Your task to perform on an android device: toggle location history Image 0: 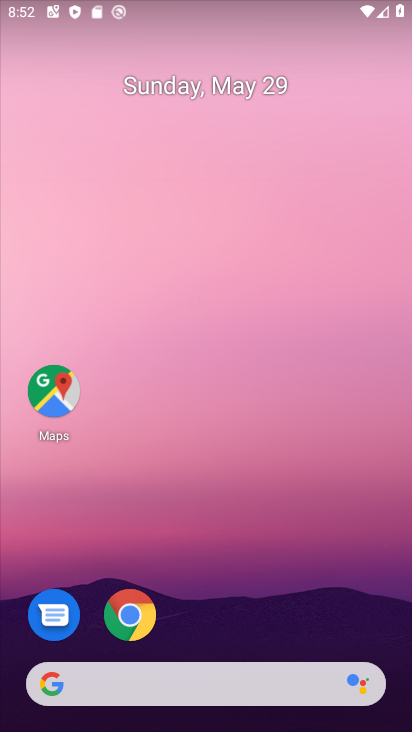
Step 0: drag from (272, 587) to (188, 160)
Your task to perform on an android device: toggle location history Image 1: 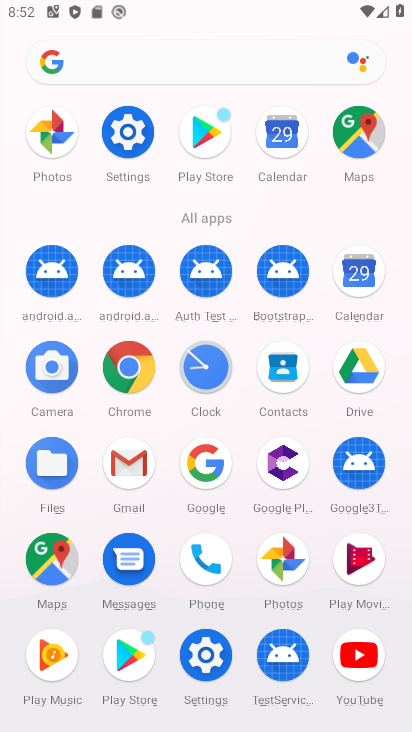
Step 1: click (131, 127)
Your task to perform on an android device: toggle location history Image 2: 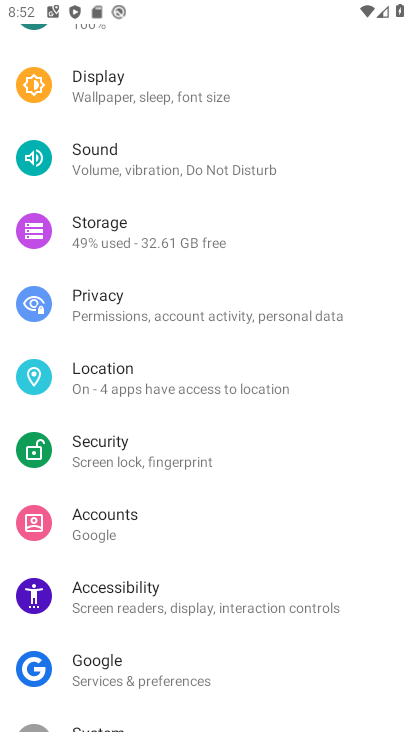
Step 2: click (102, 381)
Your task to perform on an android device: toggle location history Image 3: 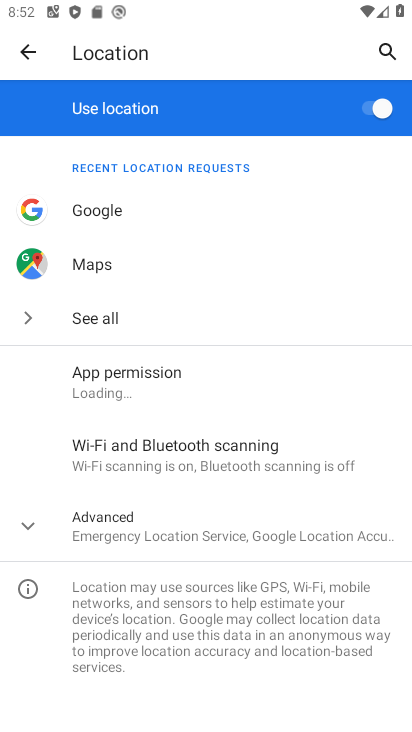
Step 3: click (76, 536)
Your task to perform on an android device: toggle location history Image 4: 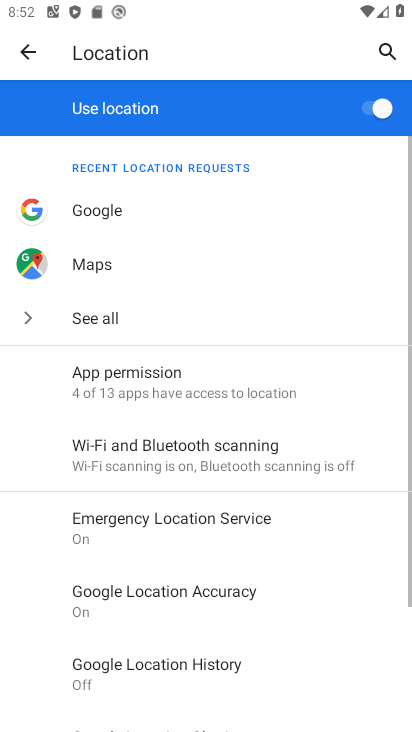
Step 4: click (184, 678)
Your task to perform on an android device: toggle location history Image 5: 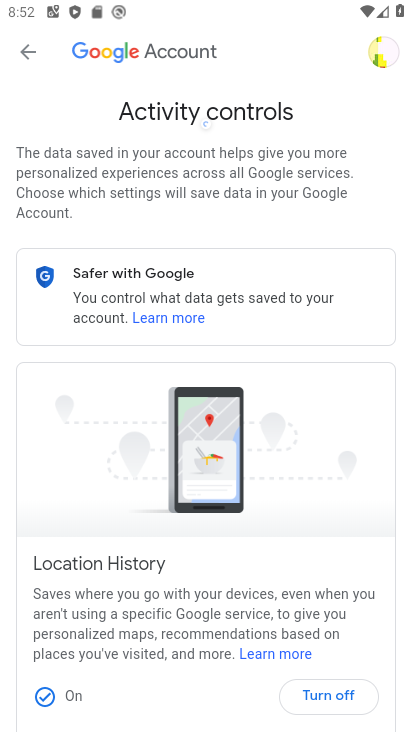
Step 5: click (303, 686)
Your task to perform on an android device: toggle location history Image 6: 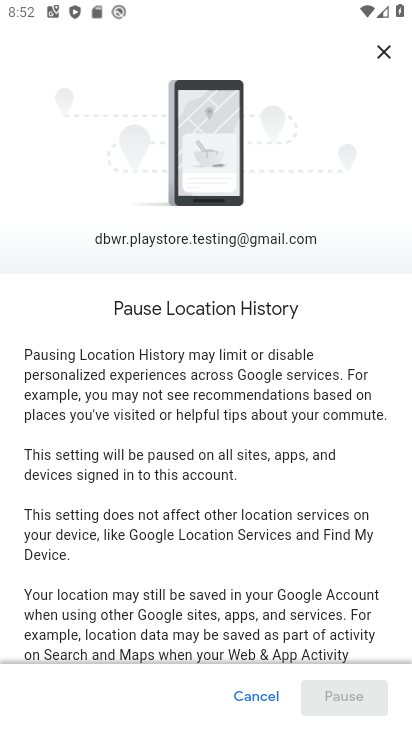
Step 6: drag from (284, 636) to (281, 68)
Your task to perform on an android device: toggle location history Image 7: 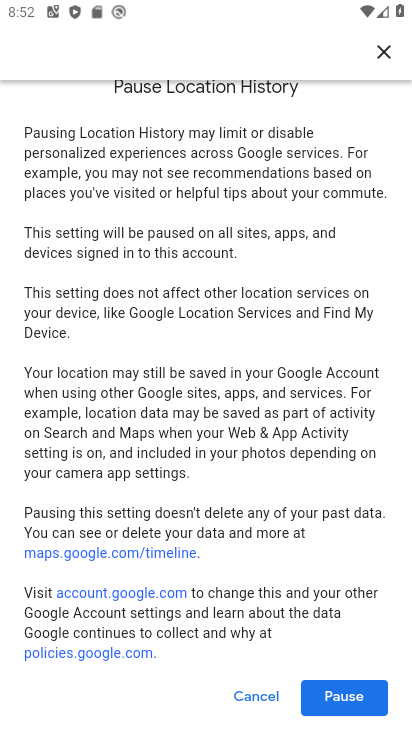
Step 7: click (339, 687)
Your task to perform on an android device: toggle location history Image 8: 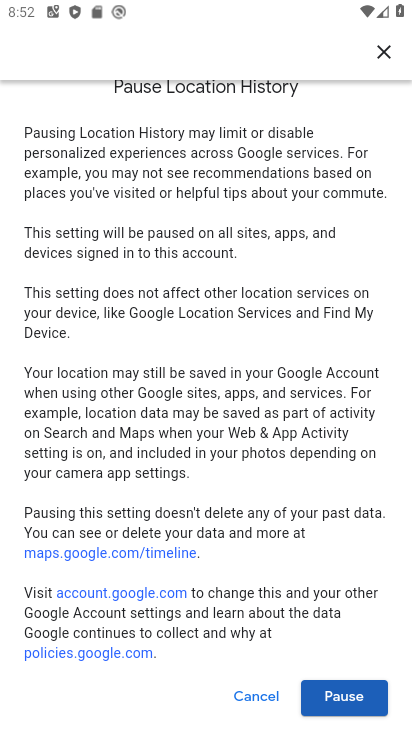
Step 8: click (343, 695)
Your task to perform on an android device: toggle location history Image 9: 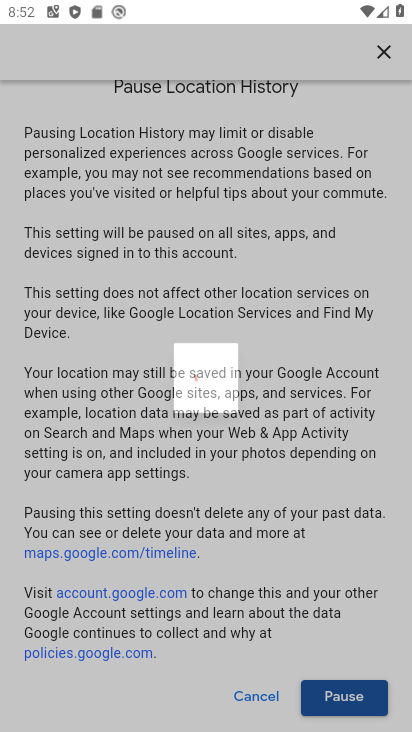
Step 9: click (344, 689)
Your task to perform on an android device: toggle location history Image 10: 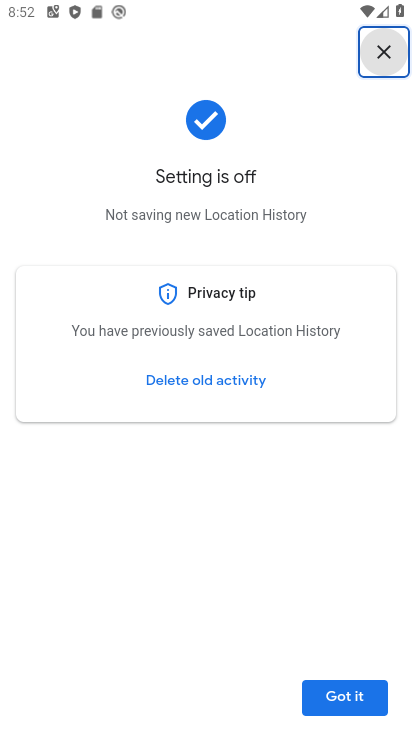
Step 10: task complete